Your task to perform on an android device: Search for pizza restaurants on Maps Image 0: 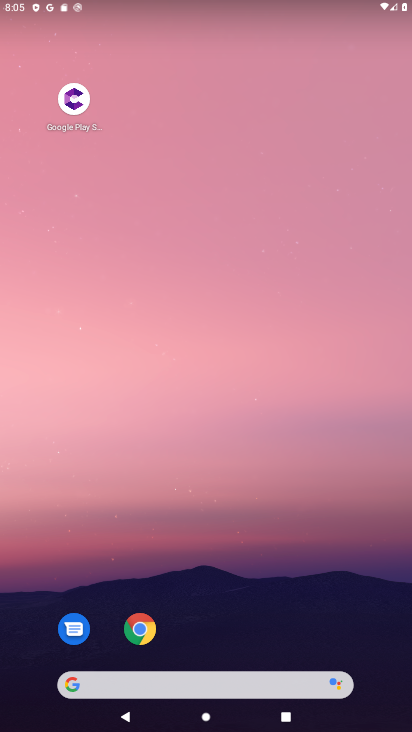
Step 0: drag from (220, 639) to (225, 170)
Your task to perform on an android device: Search for pizza restaurants on Maps Image 1: 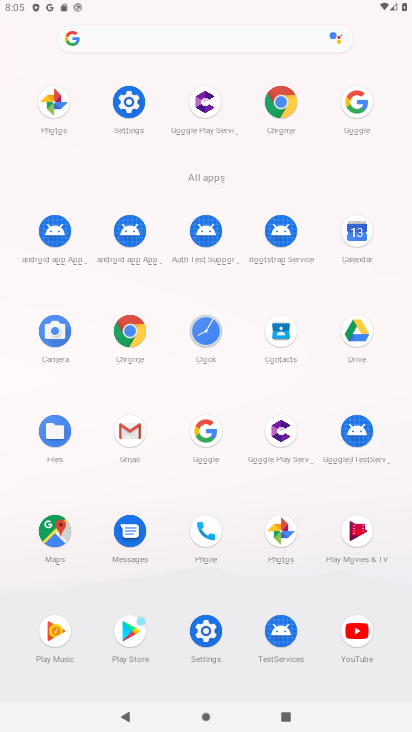
Step 1: click (55, 532)
Your task to perform on an android device: Search for pizza restaurants on Maps Image 2: 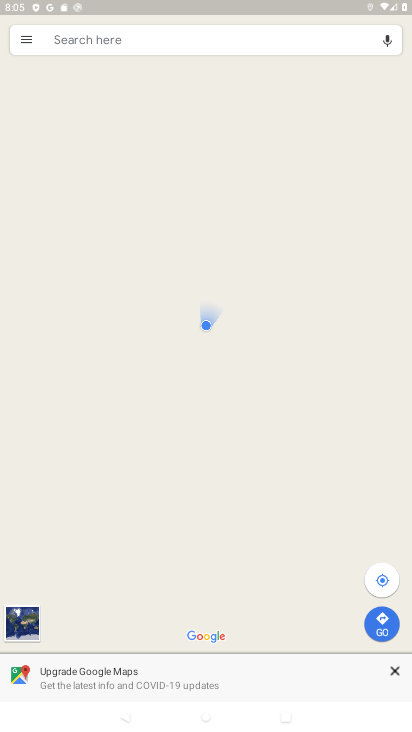
Step 2: click (173, 43)
Your task to perform on an android device: Search for pizza restaurants on Maps Image 3: 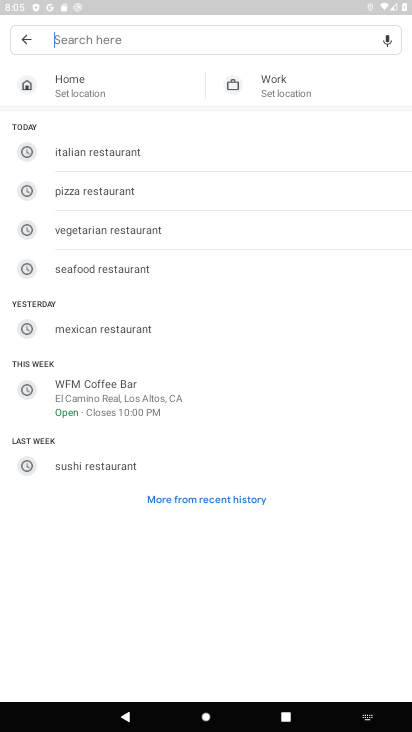
Step 3: click (99, 190)
Your task to perform on an android device: Search for pizza restaurants on Maps Image 4: 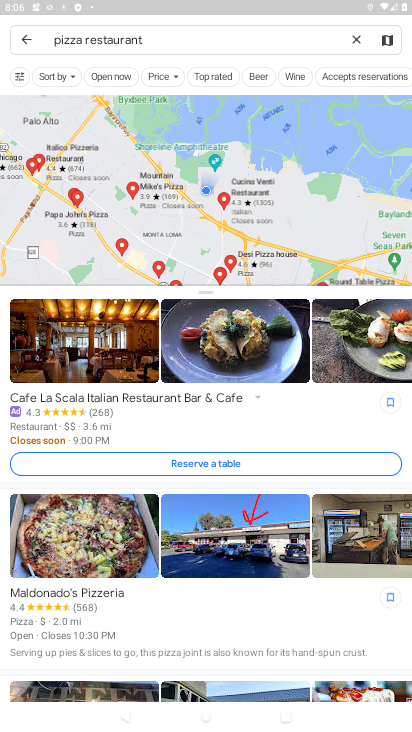
Step 4: task complete